Your task to perform on an android device: change text size in settings app Image 0: 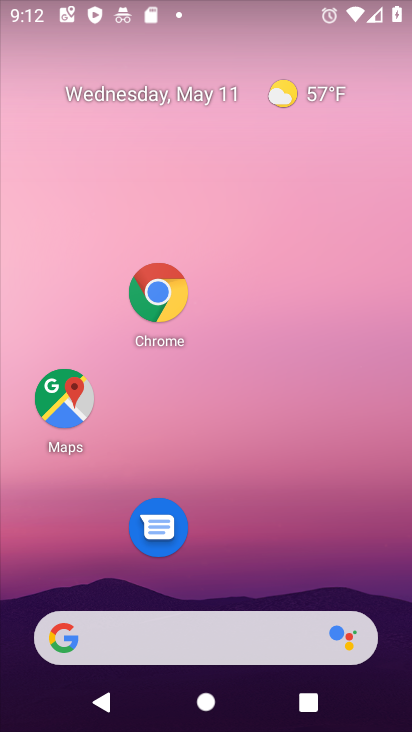
Step 0: drag from (328, 577) to (364, 19)
Your task to perform on an android device: change text size in settings app Image 1: 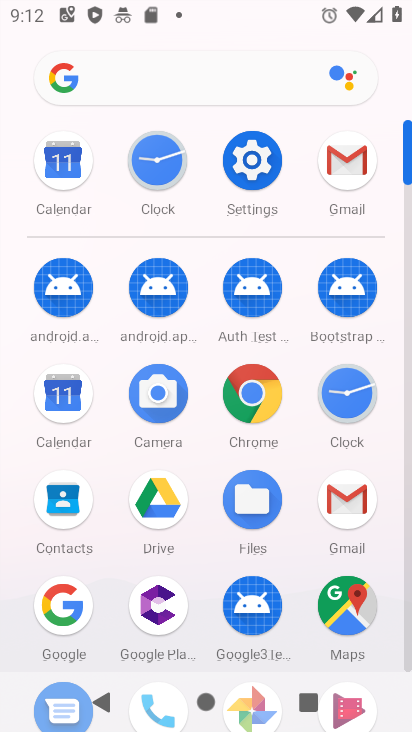
Step 1: click (250, 158)
Your task to perform on an android device: change text size in settings app Image 2: 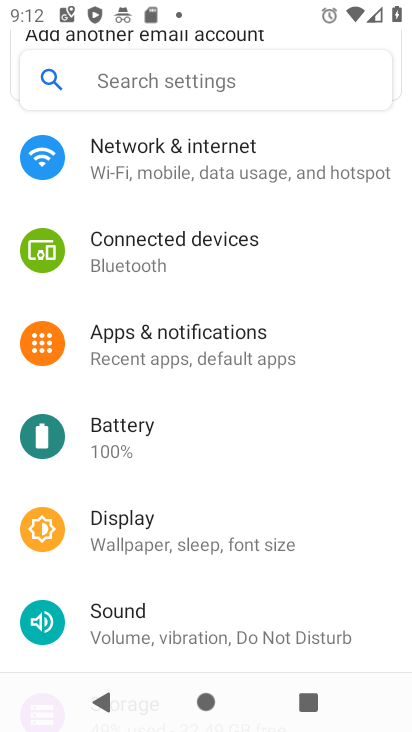
Step 2: click (100, 526)
Your task to perform on an android device: change text size in settings app Image 3: 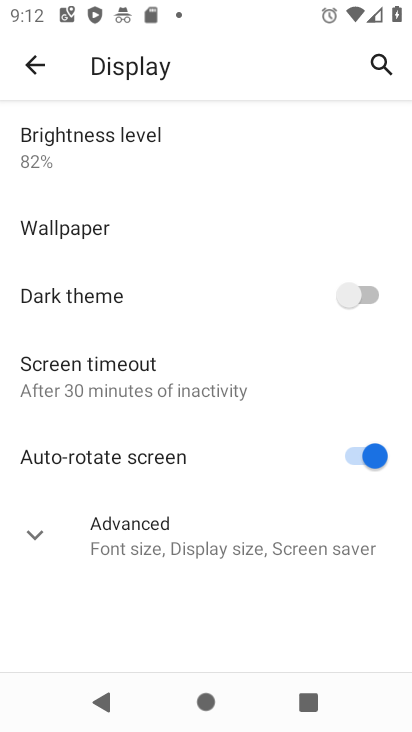
Step 3: click (29, 538)
Your task to perform on an android device: change text size in settings app Image 4: 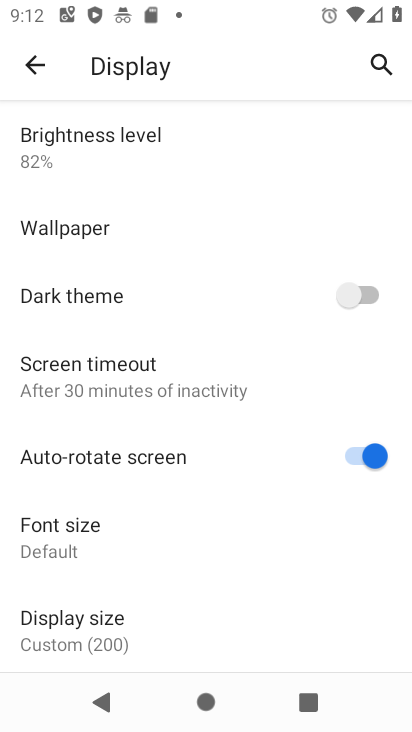
Step 4: click (23, 547)
Your task to perform on an android device: change text size in settings app Image 5: 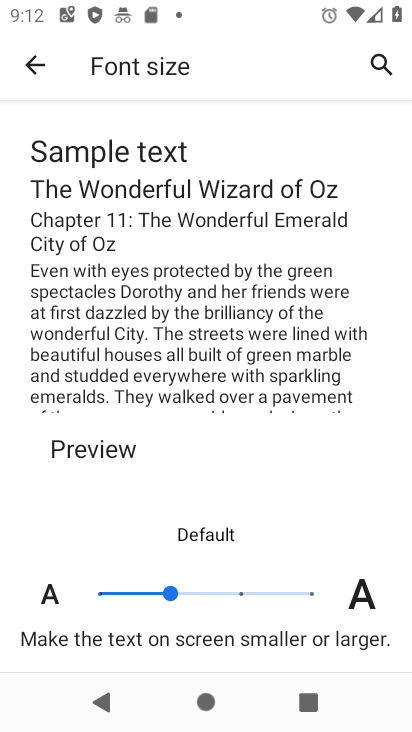
Step 5: click (224, 608)
Your task to perform on an android device: change text size in settings app Image 6: 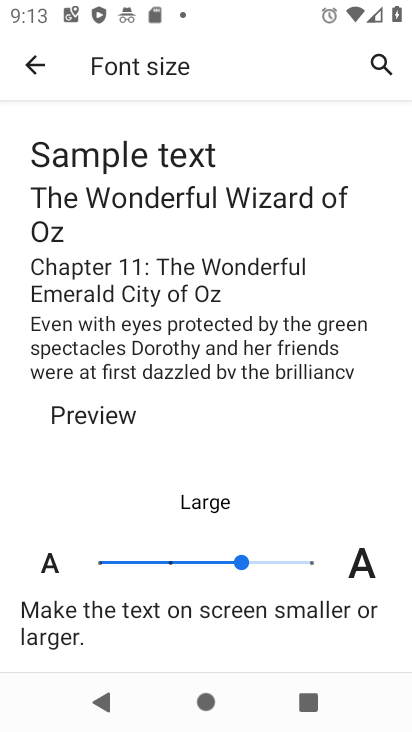
Step 6: task complete